Your task to perform on an android device: create a new album in the google photos Image 0: 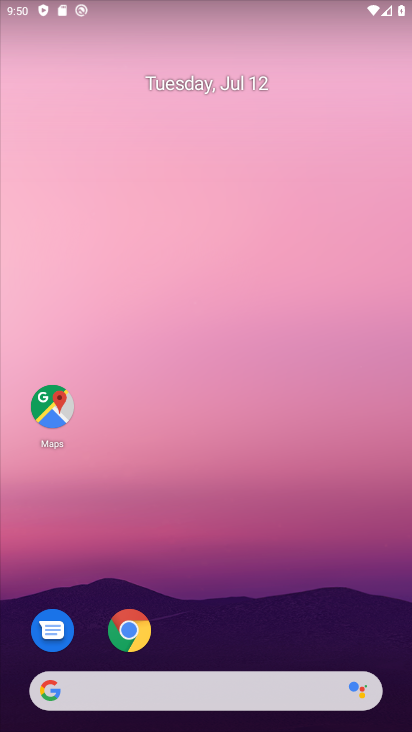
Step 0: drag from (233, 645) to (280, 31)
Your task to perform on an android device: create a new album in the google photos Image 1: 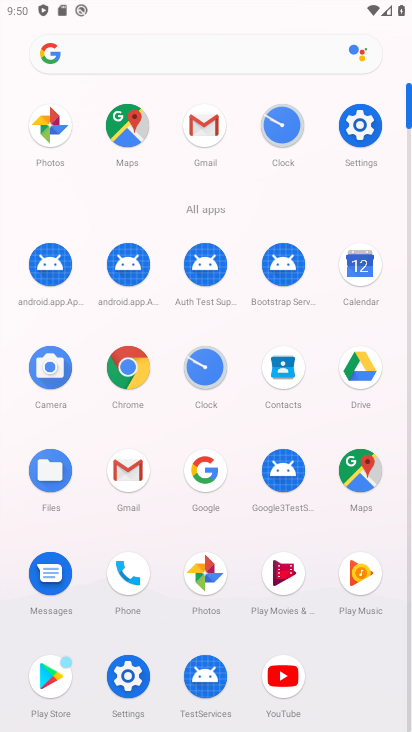
Step 1: click (126, 576)
Your task to perform on an android device: create a new album in the google photos Image 2: 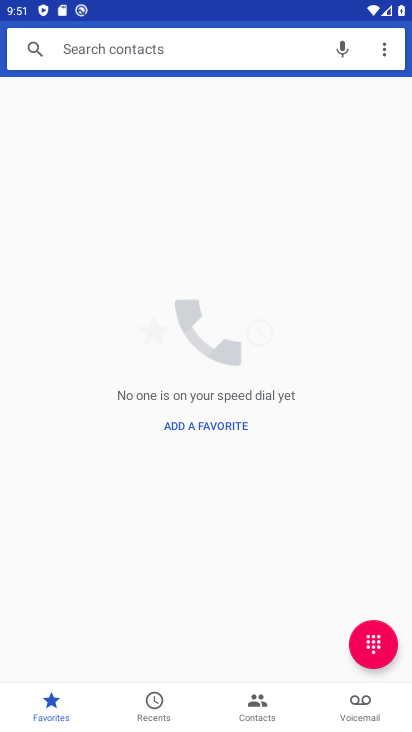
Step 2: task complete